Your task to perform on an android device: Is it going to rain today? Image 0: 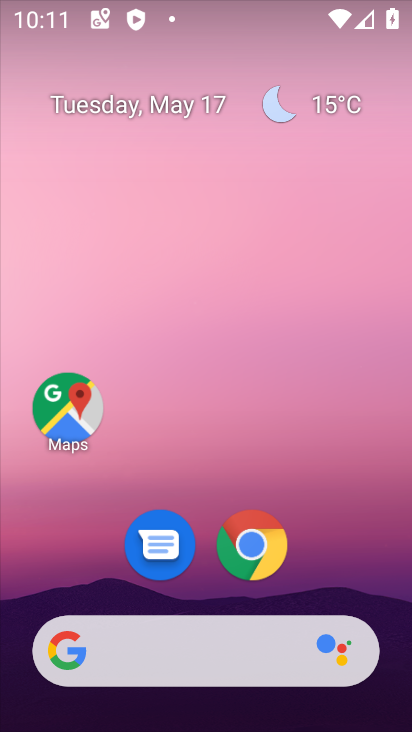
Step 0: drag from (302, 634) to (304, 730)
Your task to perform on an android device: Is it going to rain today? Image 1: 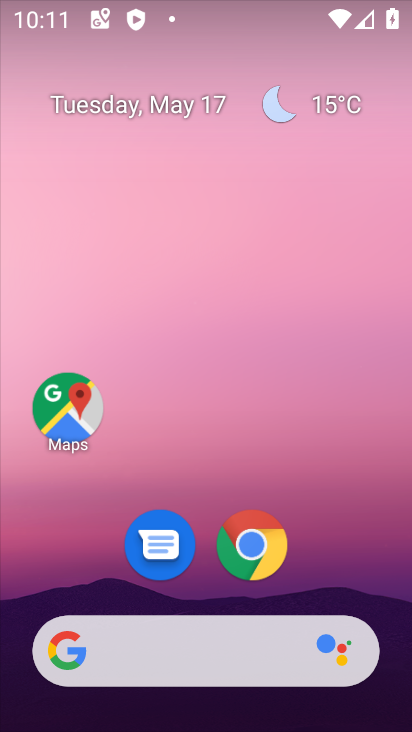
Step 1: click (317, 98)
Your task to perform on an android device: Is it going to rain today? Image 2: 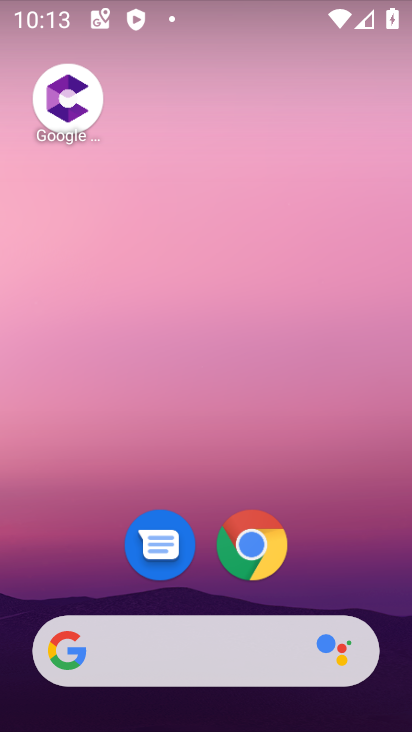
Step 2: drag from (196, 396) to (411, 365)
Your task to perform on an android device: Is it going to rain today? Image 3: 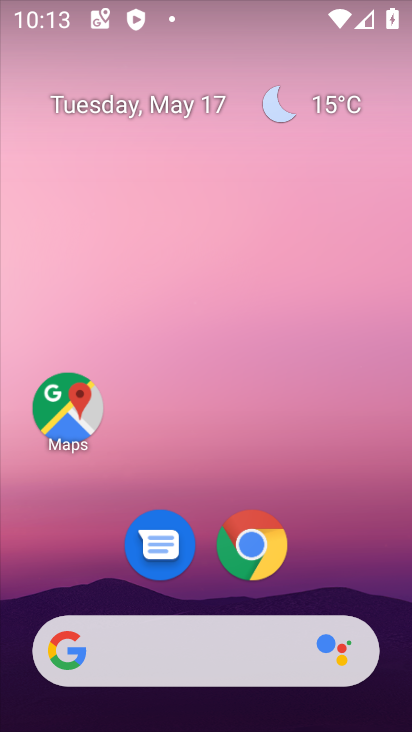
Step 3: click (342, 110)
Your task to perform on an android device: Is it going to rain today? Image 4: 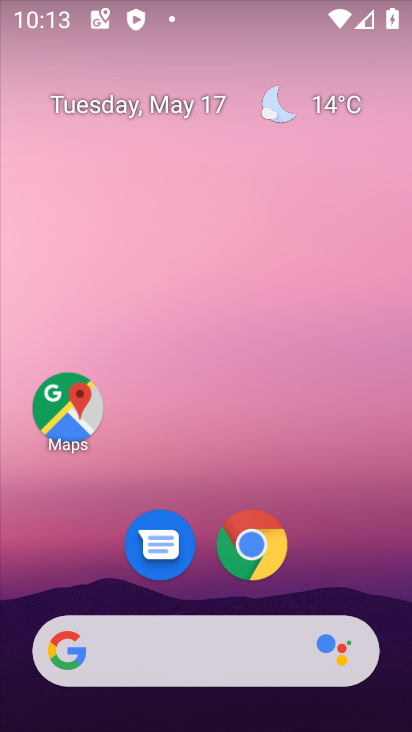
Step 4: click (339, 105)
Your task to perform on an android device: Is it going to rain today? Image 5: 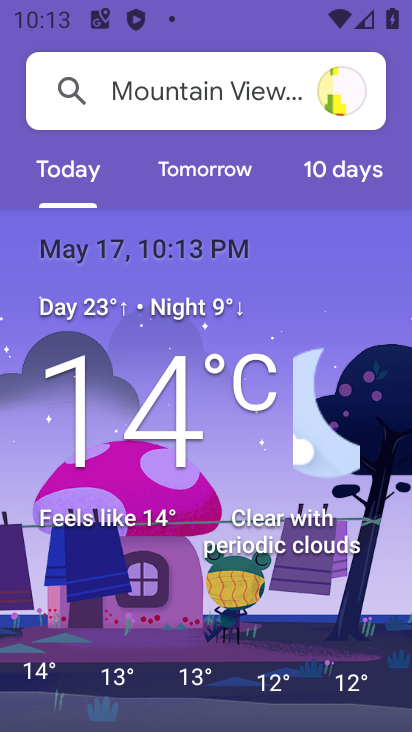
Step 5: task complete